Your task to perform on an android device: empty trash in the gmail app Image 0: 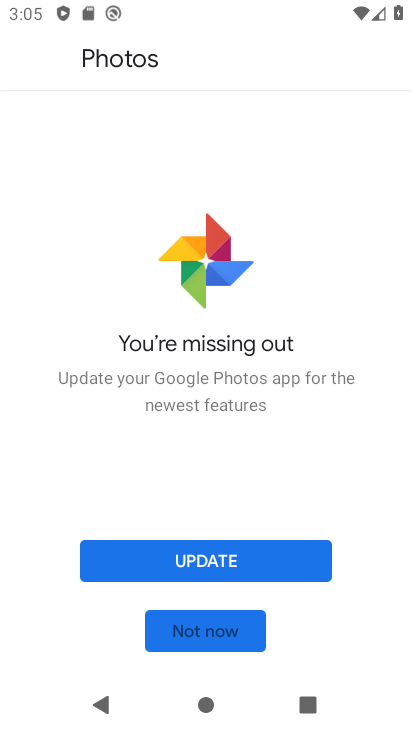
Step 0: press home button
Your task to perform on an android device: empty trash in the gmail app Image 1: 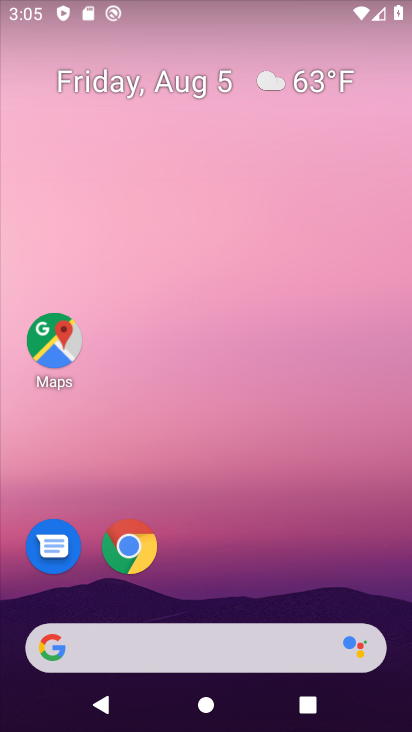
Step 1: drag from (348, 574) to (349, 166)
Your task to perform on an android device: empty trash in the gmail app Image 2: 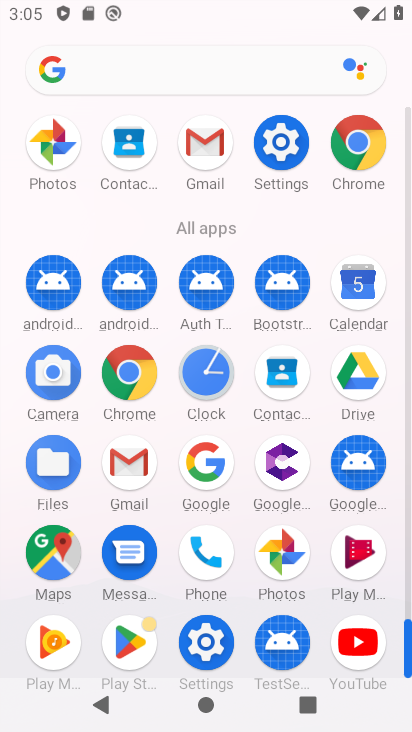
Step 2: click (129, 462)
Your task to perform on an android device: empty trash in the gmail app Image 3: 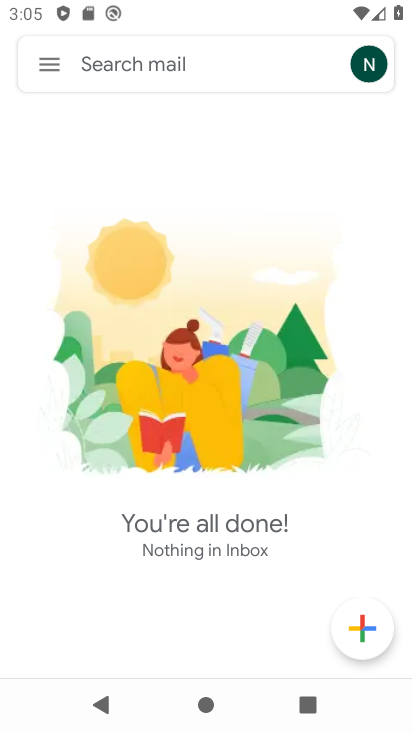
Step 3: click (51, 59)
Your task to perform on an android device: empty trash in the gmail app Image 4: 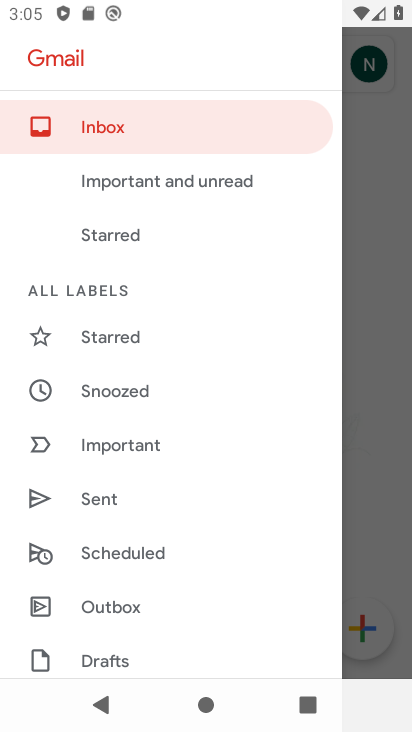
Step 4: drag from (281, 476) to (276, 373)
Your task to perform on an android device: empty trash in the gmail app Image 5: 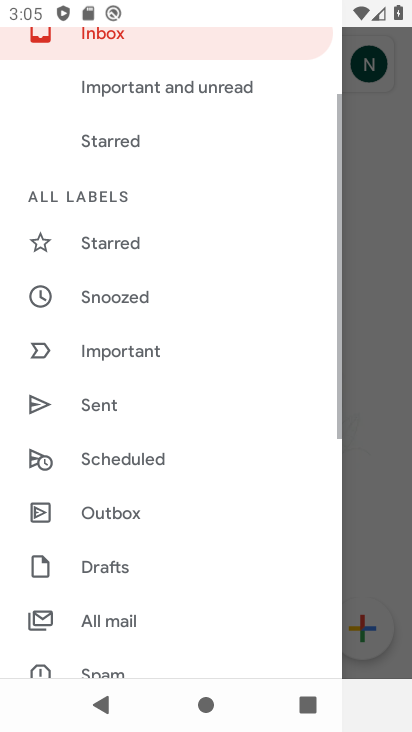
Step 5: drag from (254, 555) to (256, 397)
Your task to perform on an android device: empty trash in the gmail app Image 6: 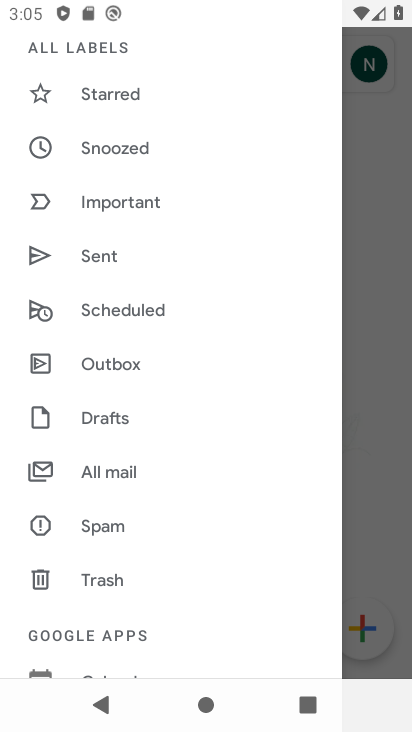
Step 6: drag from (238, 558) to (230, 434)
Your task to perform on an android device: empty trash in the gmail app Image 7: 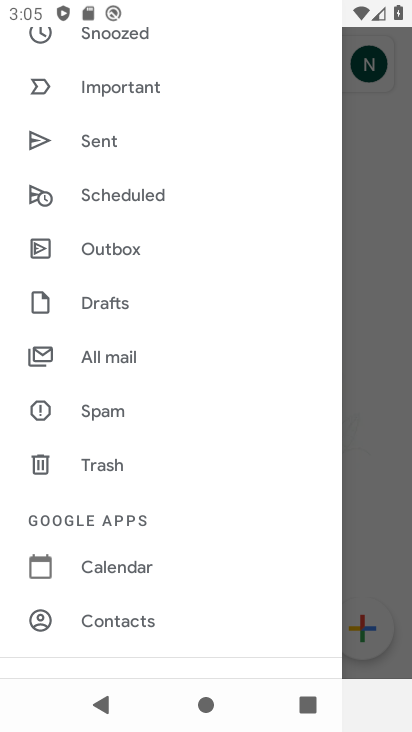
Step 7: drag from (222, 588) to (230, 449)
Your task to perform on an android device: empty trash in the gmail app Image 8: 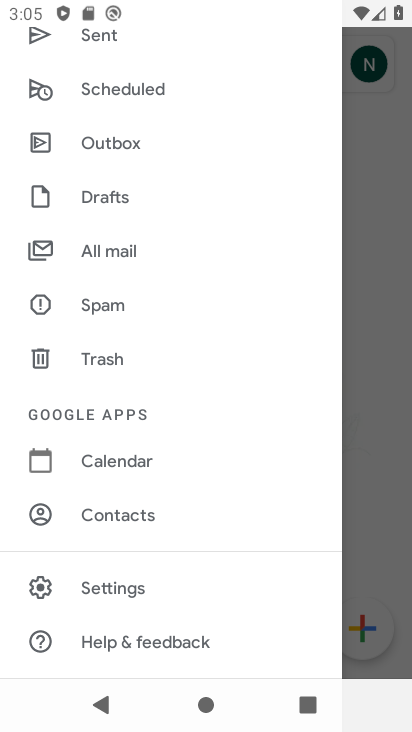
Step 8: drag from (208, 311) to (212, 417)
Your task to perform on an android device: empty trash in the gmail app Image 9: 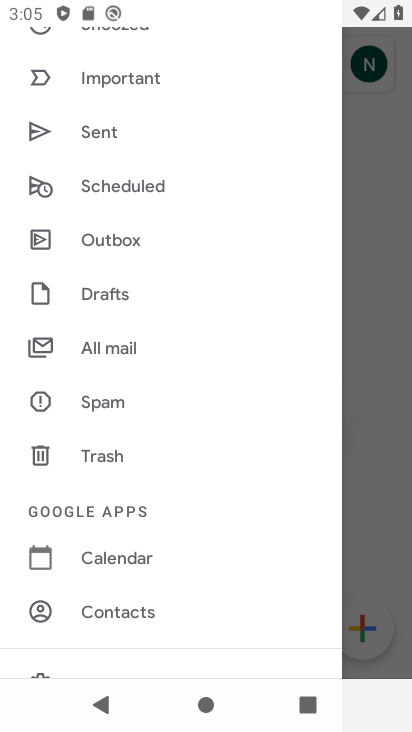
Step 9: click (166, 458)
Your task to perform on an android device: empty trash in the gmail app Image 10: 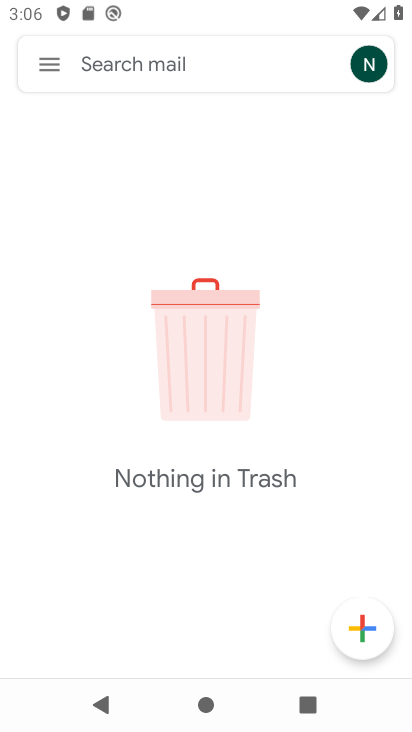
Step 10: task complete